Your task to perform on an android device: delete browsing data in the chrome app Image 0: 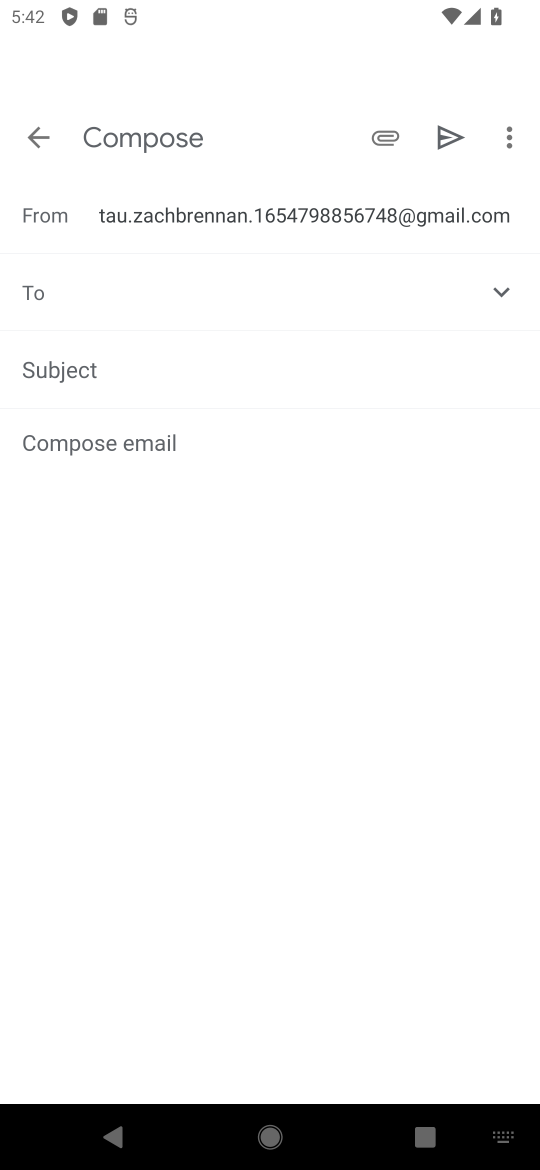
Step 0: press home button
Your task to perform on an android device: delete browsing data in the chrome app Image 1: 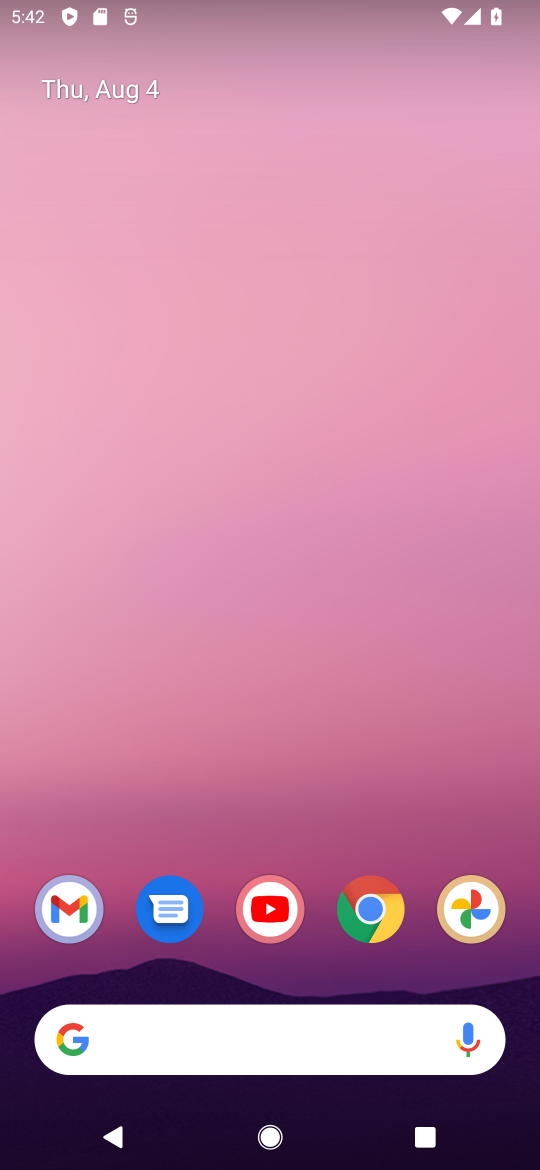
Step 1: drag from (203, 965) to (101, 33)
Your task to perform on an android device: delete browsing data in the chrome app Image 2: 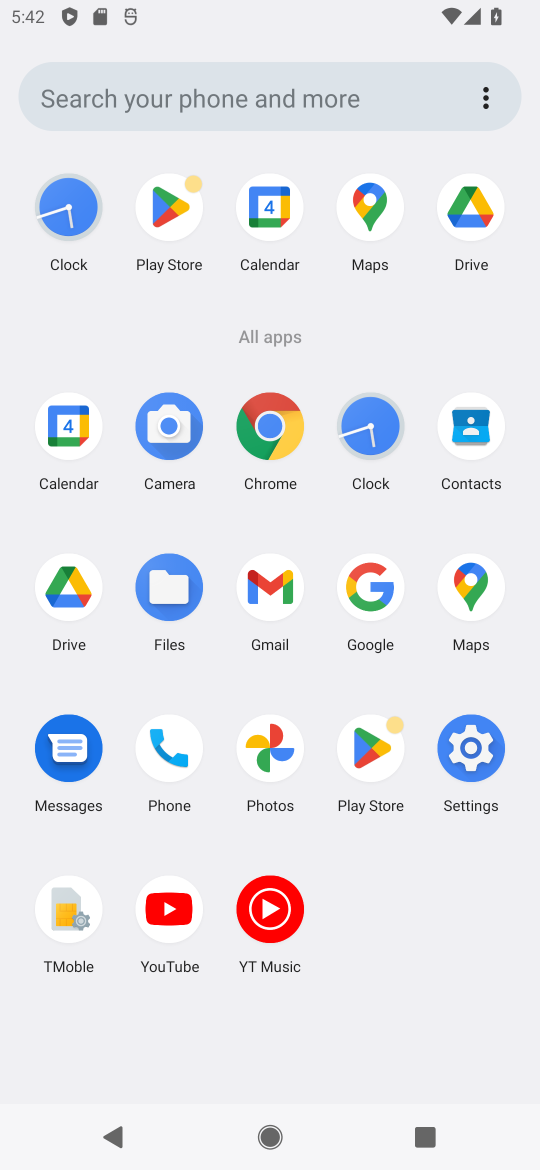
Step 2: click (264, 453)
Your task to perform on an android device: delete browsing data in the chrome app Image 3: 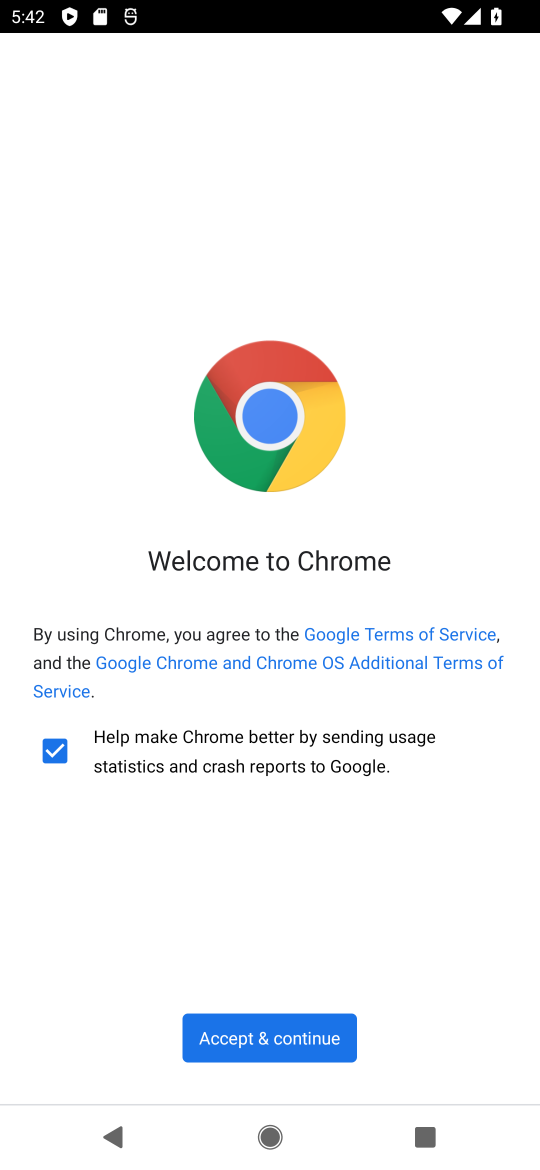
Step 3: click (328, 1026)
Your task to perform on an android device: delete browsing data in the chrome app Image 4: 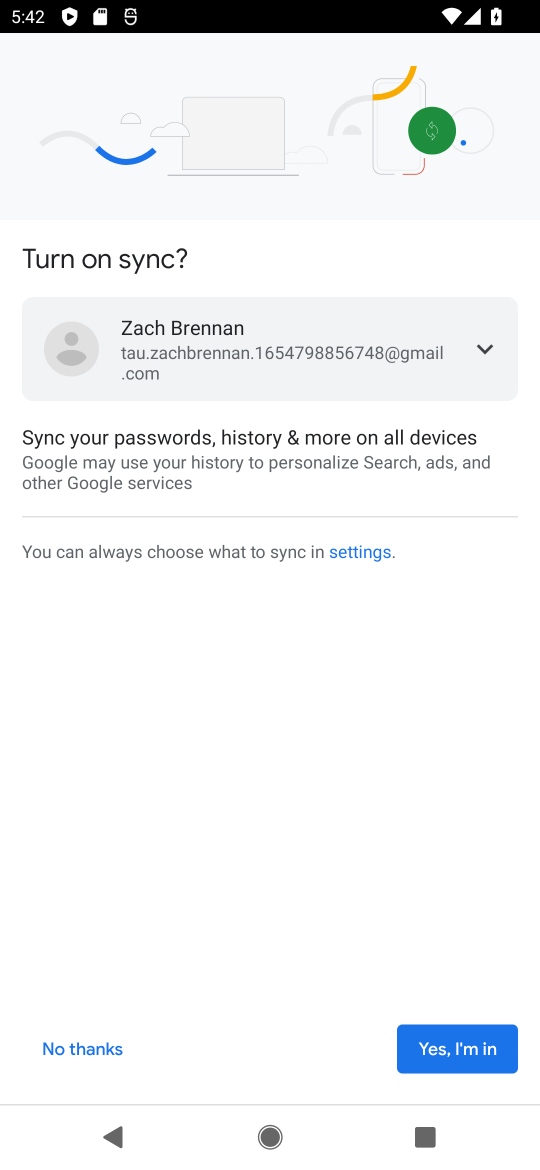
Step 4: click (93, 1063)
Your task to perform on an android device: delete browsing data in the chrome app Image 5: 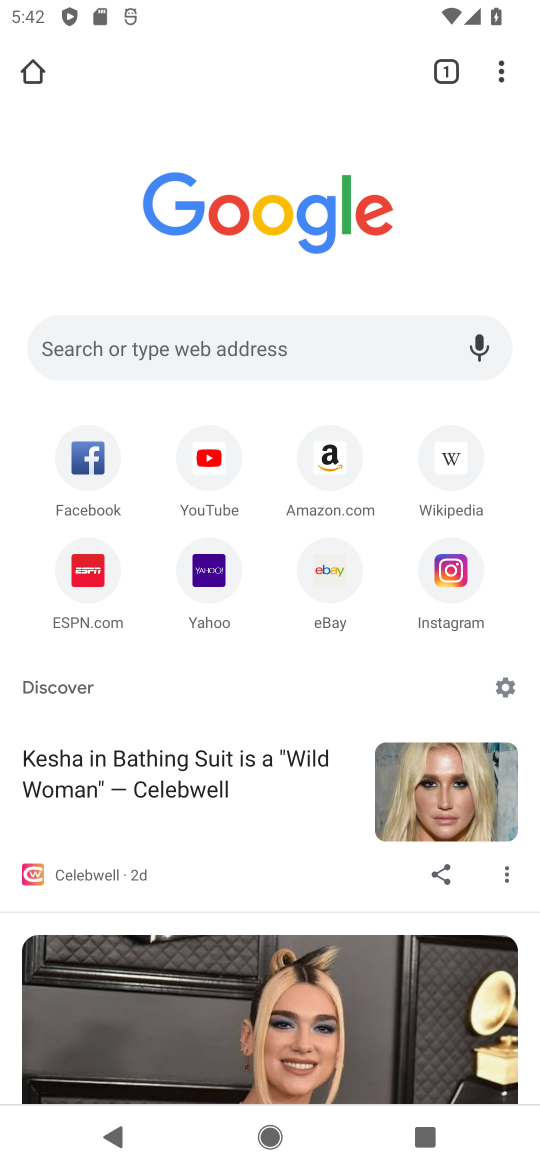
Step 5: task complete